Your task to perform on an android device: change notification settings in the gmail app Image 0: 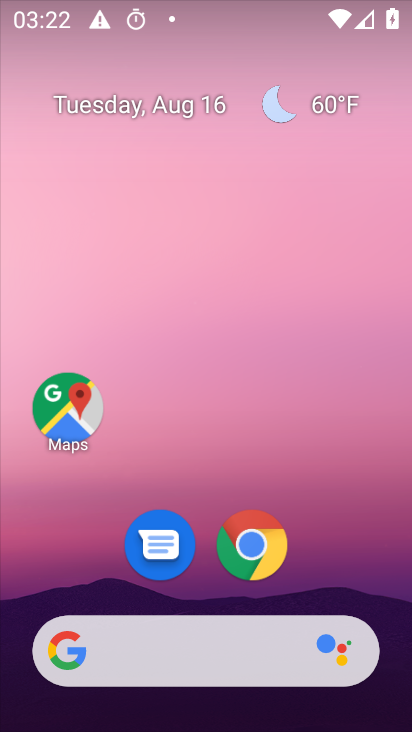
Step 0: drag from (96, 531) to (119, 213)
Your task to perform on an android device: change notification settings in the gmail app Image 1: 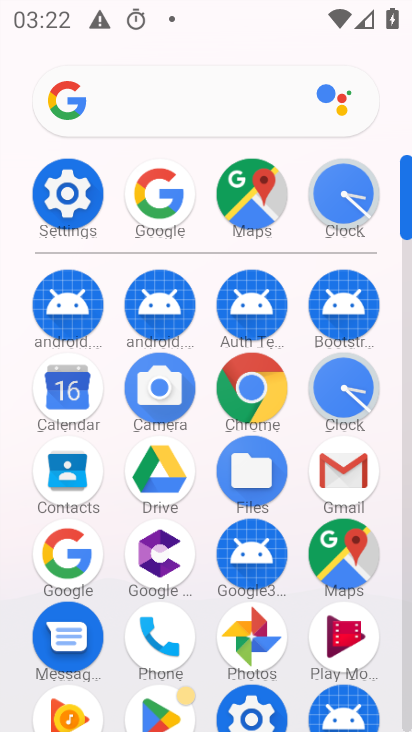
Step 1: click (351, 476)
Your task to perform on an android device: change notification settings in the gmail app Image 2: 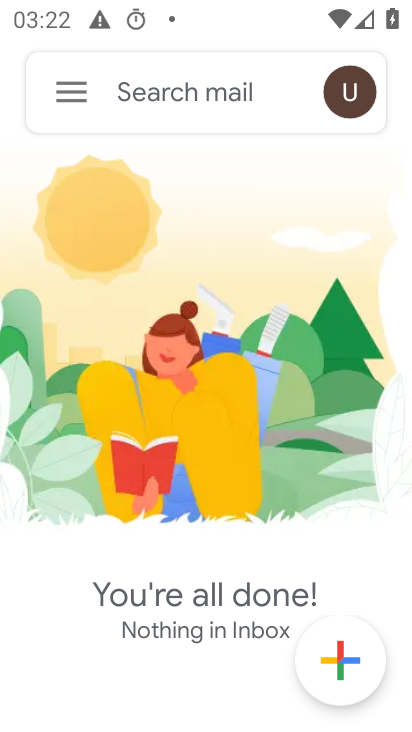
Step 2: click (71, 90)
Your task to perform on an android device: change notification settings in the gmail app Image 3: 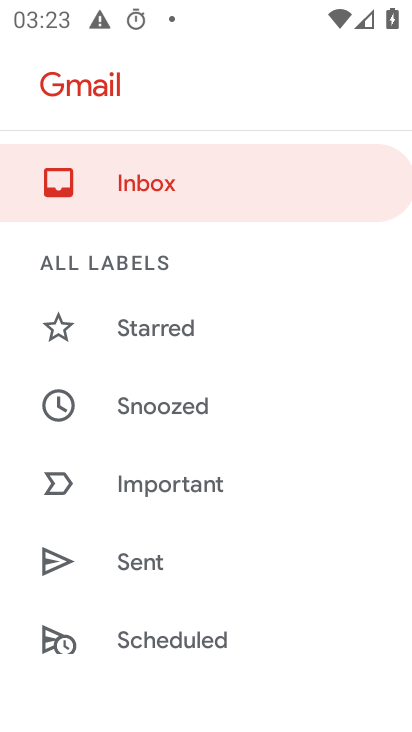
Step 3: drag from (134, 637) to (134, 356)
Your task to perform on an android device: change notification settings in the gmail app Image 4: 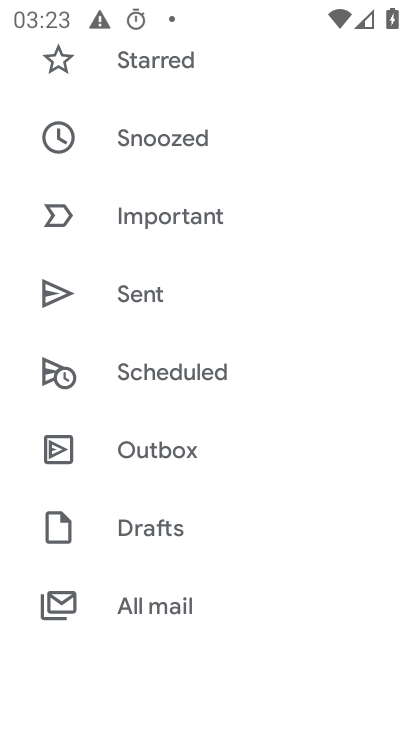
Step 4: drag from (120, 585) to (120, 353)
Your task to perform on an android device: change notification settings in the gmail app Image 5: 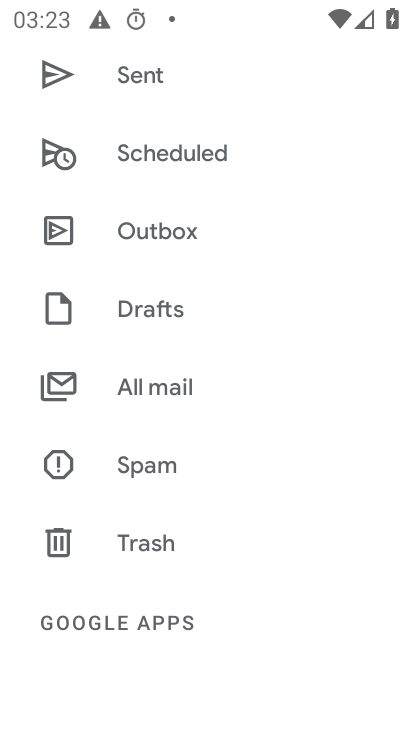
Step 5: drag from (165, 616) to (159, 298)
Your task to perform on an android device: change notification settings in the gmail app Image 6: 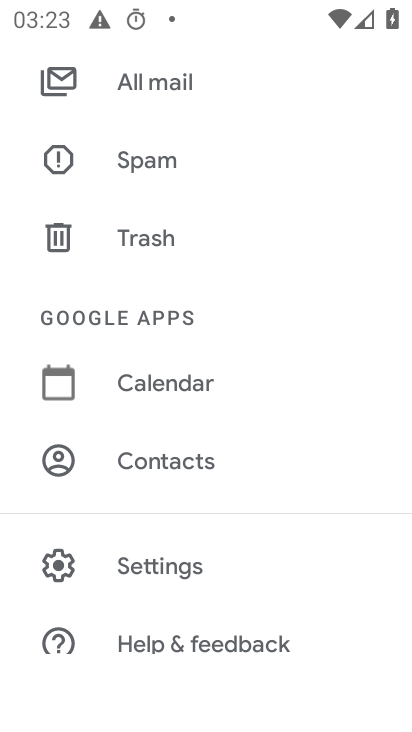
Step 6: click (156, 567)
Your task to perform on an android device: change notification settings in the gmail app Image 7: 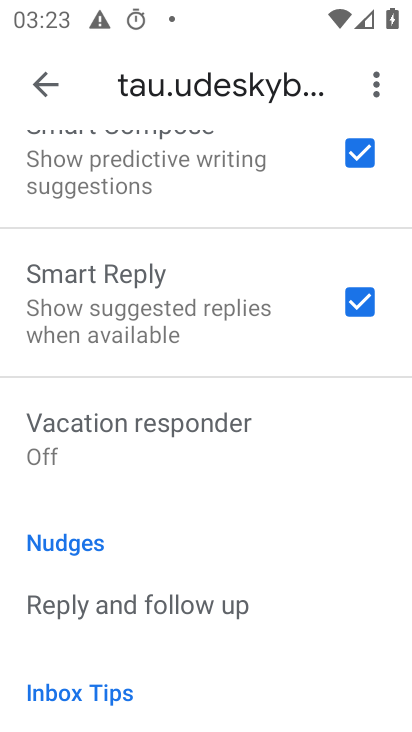
Step 7: drag from (137, 687) to (176, 265)
Your task to perform on an android device: change notification settings in the gmail app Image 8: 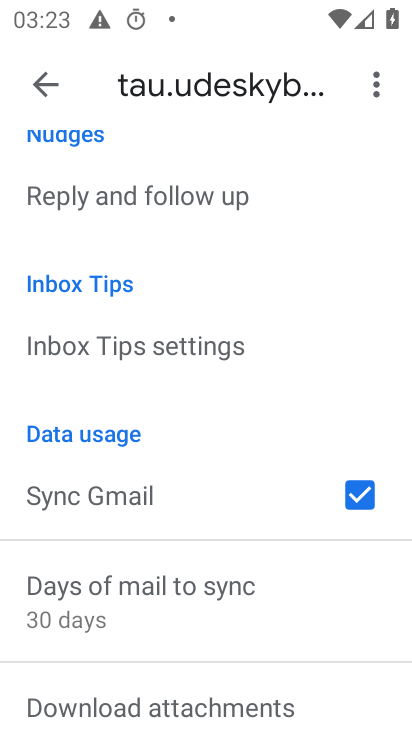
Step 8: drag from (123, 677) to (121, 352)
Your task to perform on an android device: change notification settings in the gmail app Image 9: 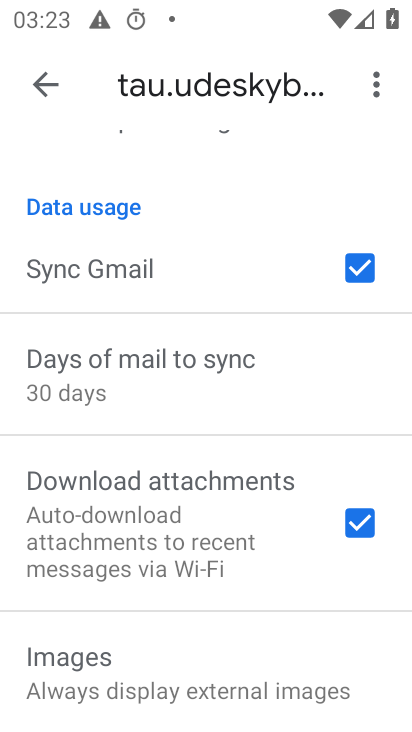
Step 9: drag from (189, 184) to (192, 585)
Your task to perform on an android device: change notification settings in the gmail app Image 10: 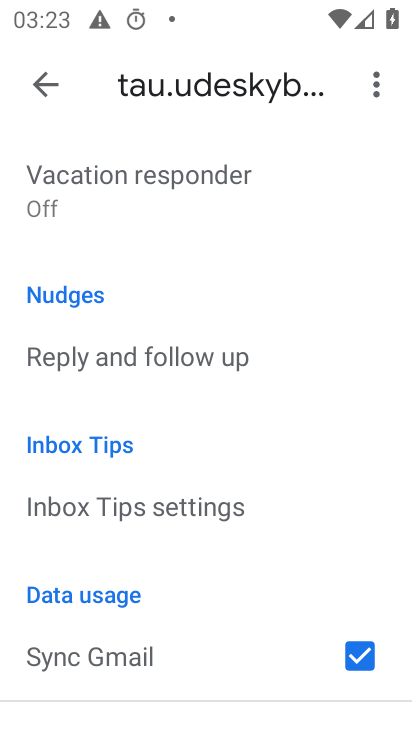
Step 10: drag from (164, 237) to (170, 616)
Your task to perform on an android device: change notification settings in the gmail app Image 11: 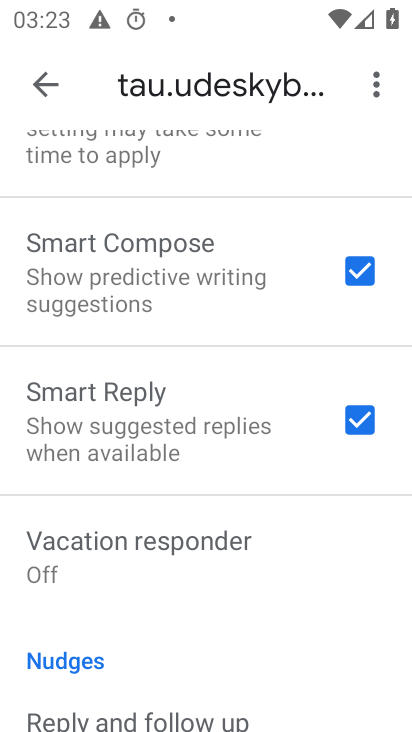
Step 11: drag from (129, 218) to (129, 656)
Your task to perform on an android device: change notification settings in the gmail app Image 12: 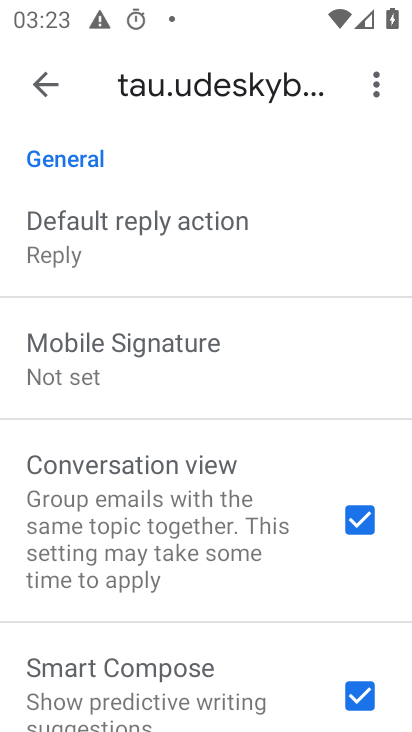
Step 12: drag from (115, 192) to (133, 548)
Your task to perform on an android device: change notification settings in the gmail app Image 13: 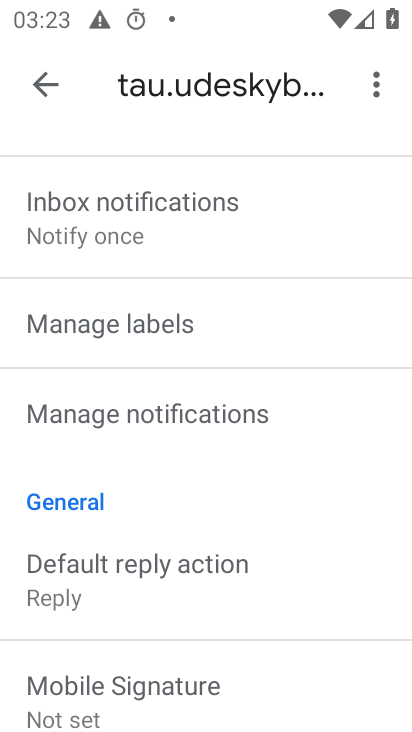
Step 13: click (101, 413)
Your task to perform on an android device: change notification settings in the gmail app Image 14: 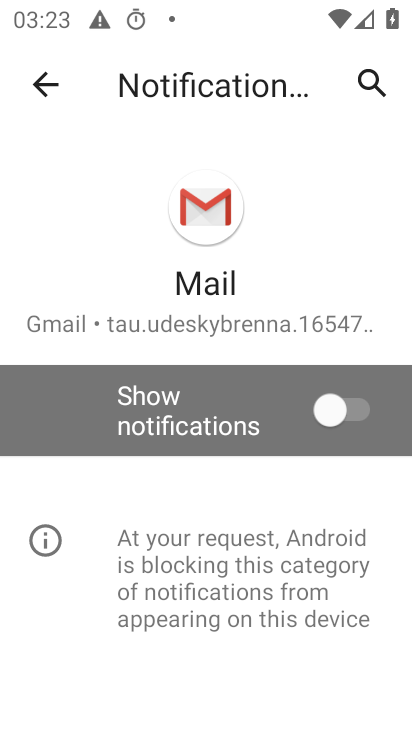
Step 14: click (333, 410)
Your task to perform on an android device: change notification settings in the gmail app Image 15: 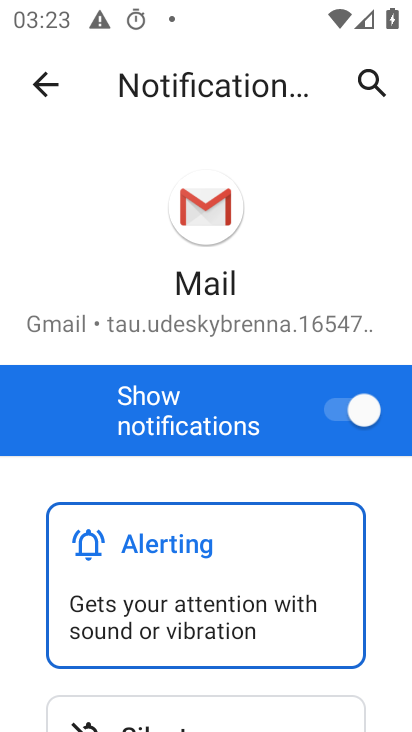
Step 15: task complete